Your task to perform on an android device: allow cookies in the chrome app Image 0: 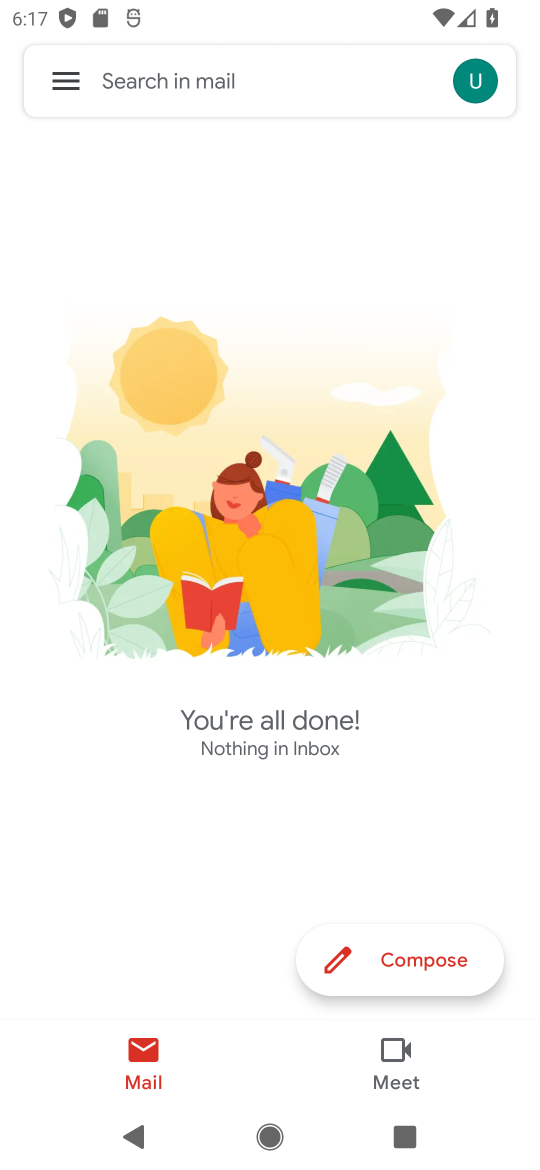
Step 0: press home button
Your task to perform on an android device: allow cookies in the chrome app Image 1: 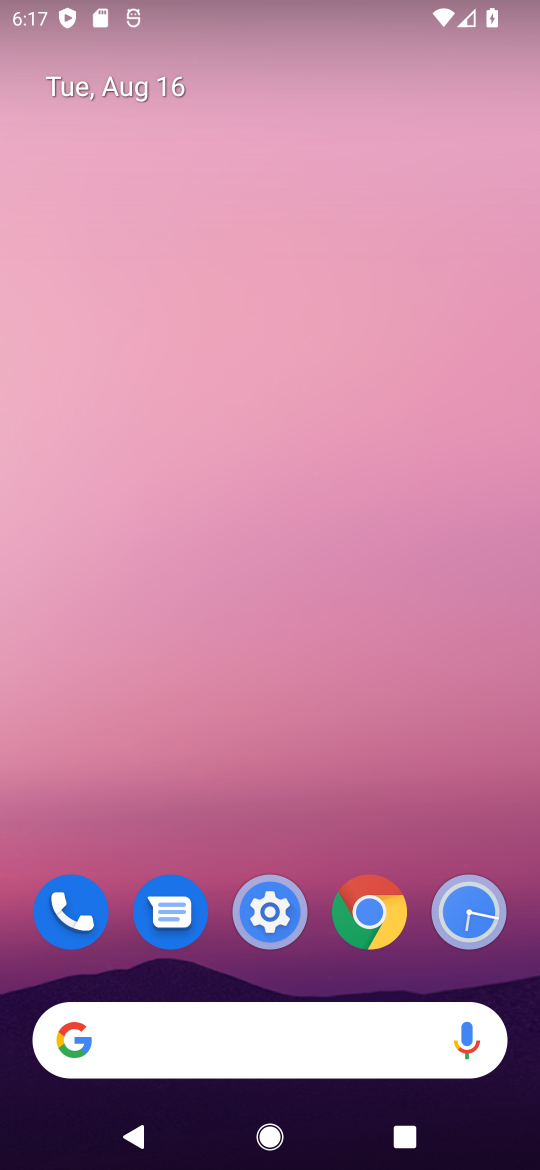
Step 1: click (370, 912)
Your task to perform on an android device: allow cookies in the chrome app Image 2: 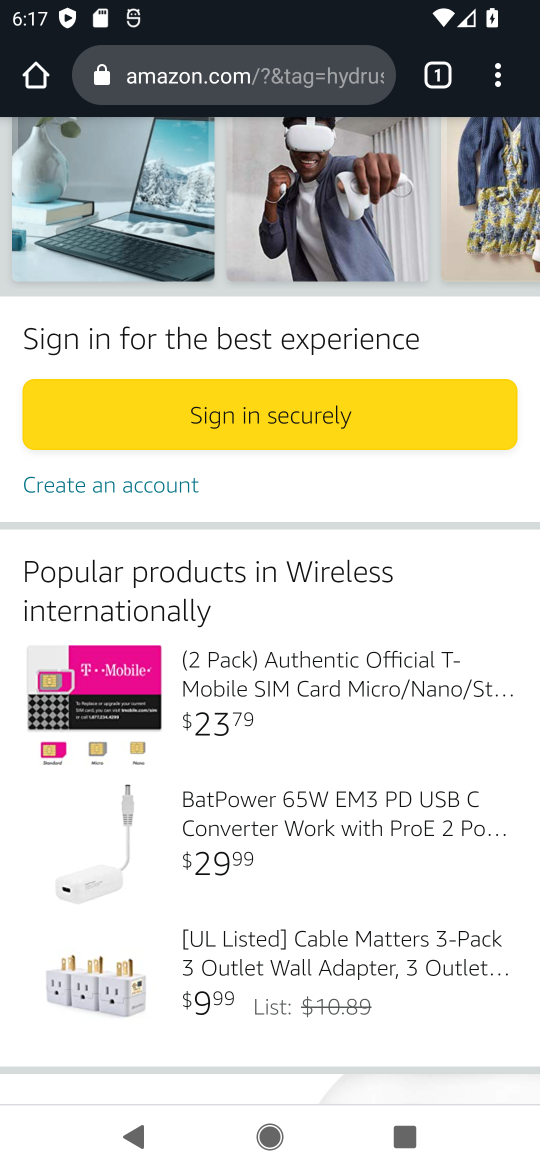
Step 2: click (492, 89)
Your task to perform on an android device: allow cookies in the chrome app Image 3: 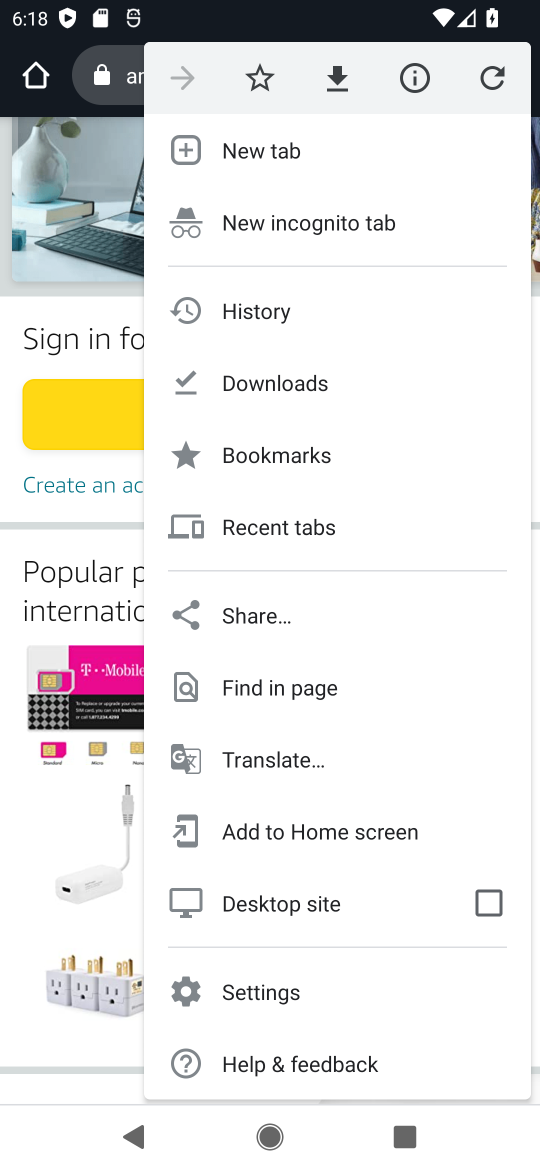
Step 3: click (261, 987)
Your task to perform on an android device: allow cookies in the chrome app Image 4: 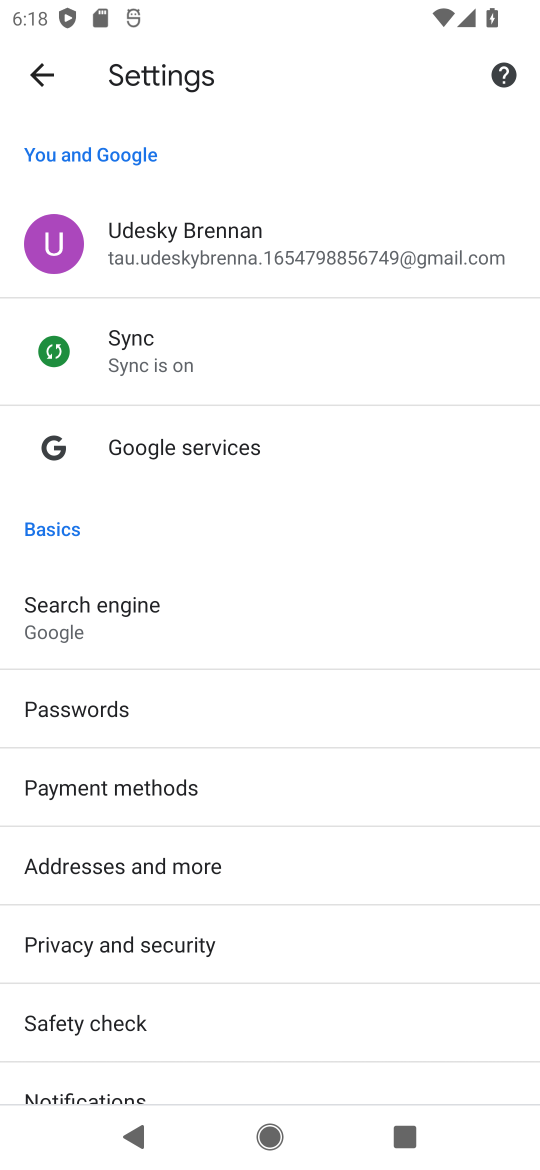
Step 4: drag from (383, 977) to (324, 488)
Your task to perform on an android device: allow cookies in the chrome app Image 5: 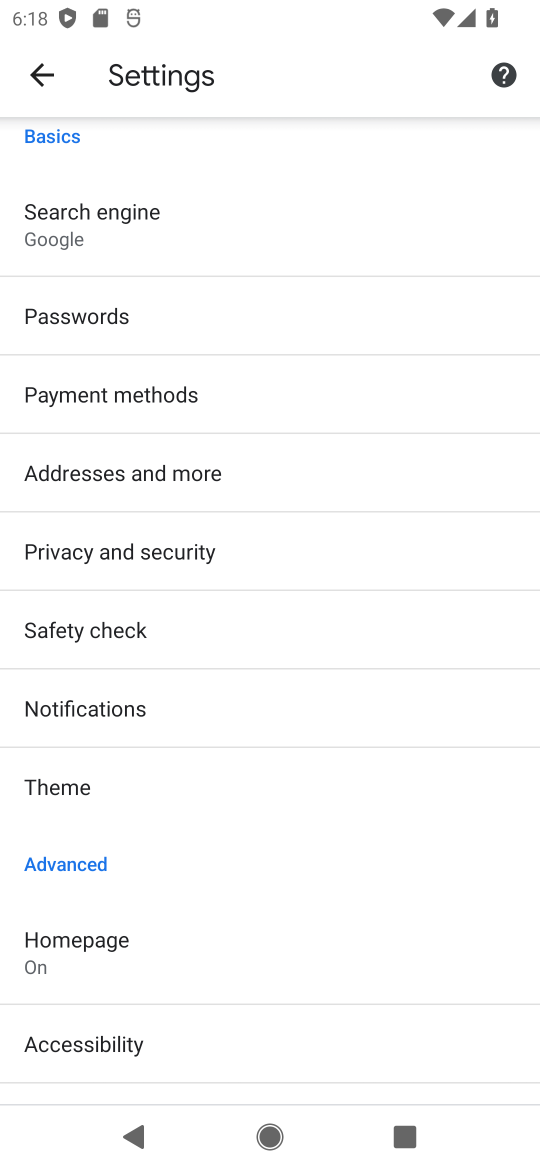
Step 5: drag from (198, 1019) to (248, 513)
Your task to perform on an android device: allow cookies in the chrome app Image 6: 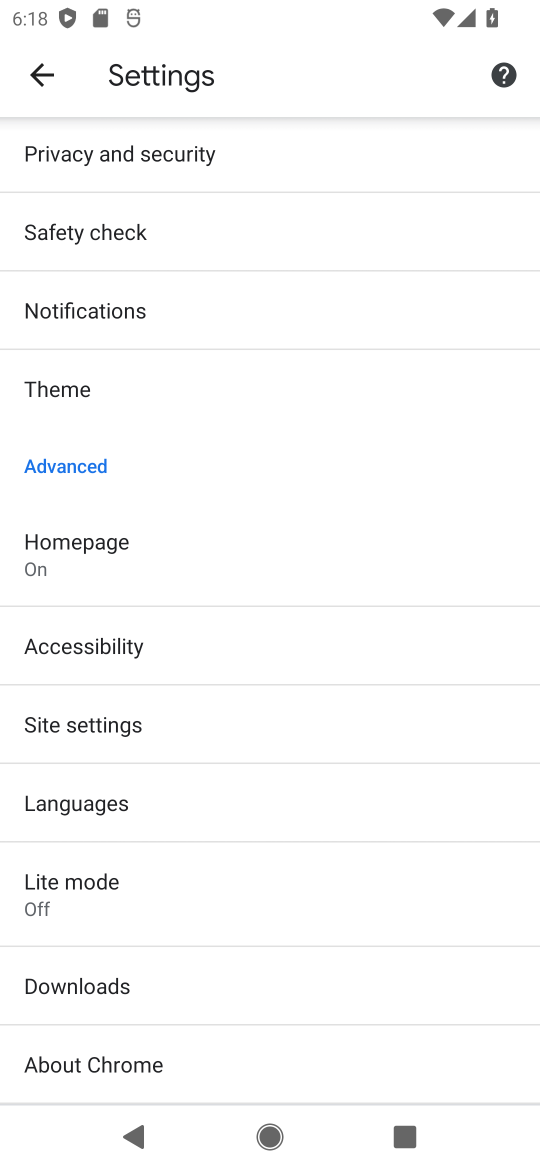
Step 6: click (78, 723)
Your task to perform on an android device: allow cookies in the chrome app Image 7: 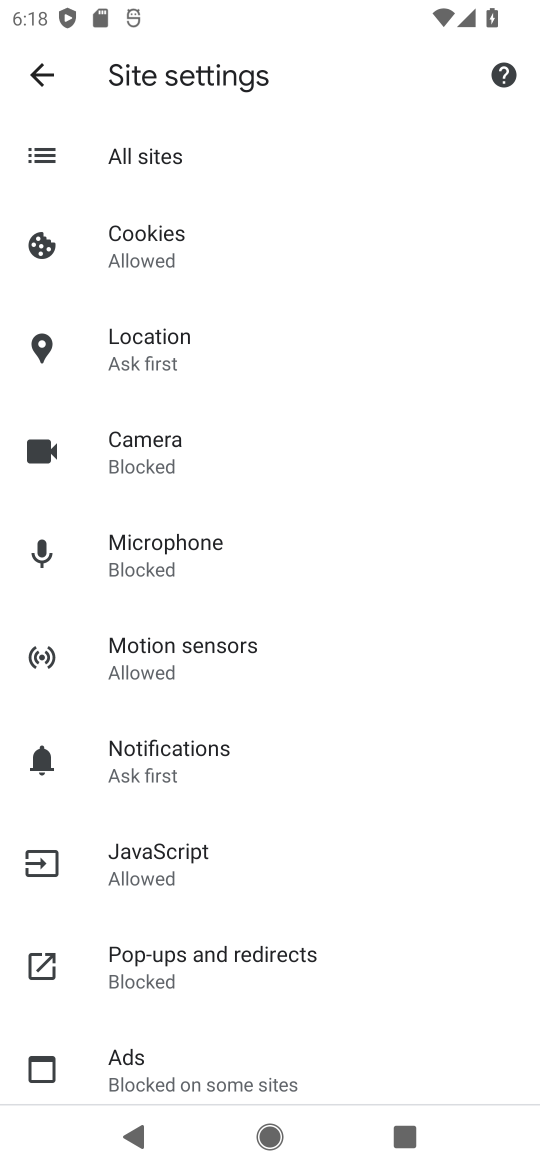
Step 7: click (149, 236)
Your task to perform on an android device: allow cookies in the chrome app Image 8: 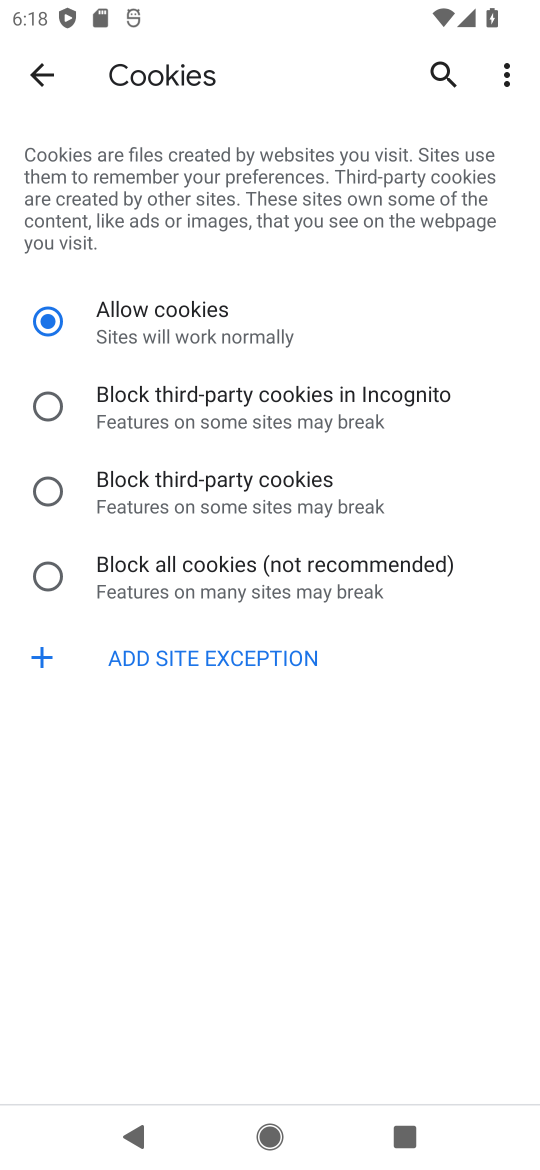
Step 8: task complete